Your task to perform on an android device: check data usage Image 0: 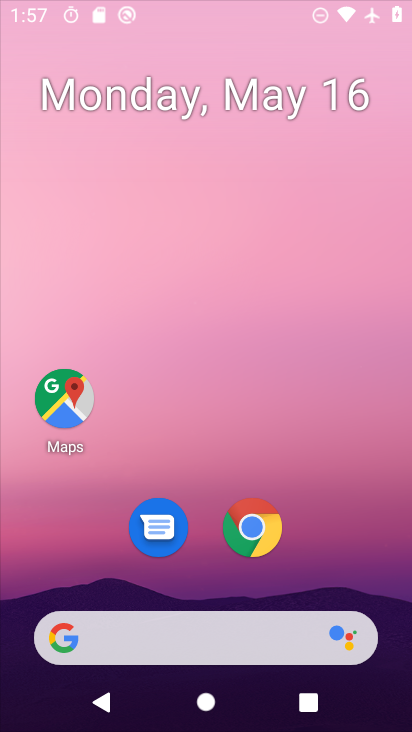
Step 0: press home button
Your task to perform on an android device: check data usage Image 1: 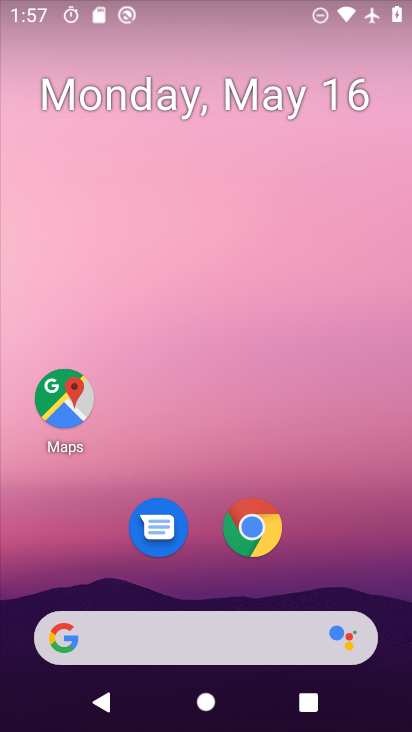
Step 1: drag from (158, 636) to (316, 234)
Your task to perform on an android device: check data usage Image 2: 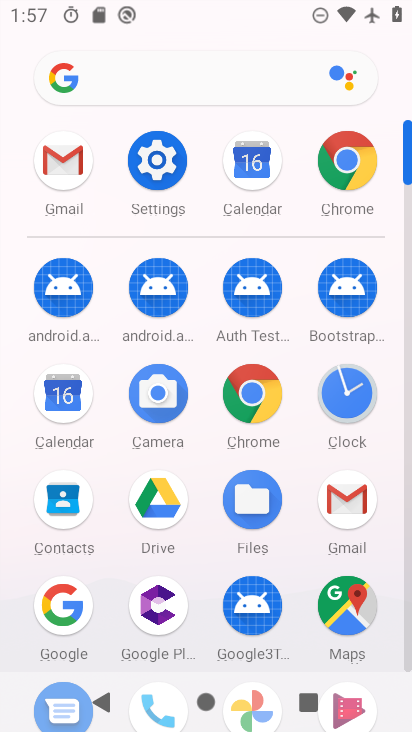
Step 2: click (160, 156)
Your task to perform on an android device: check data usage Image 3: 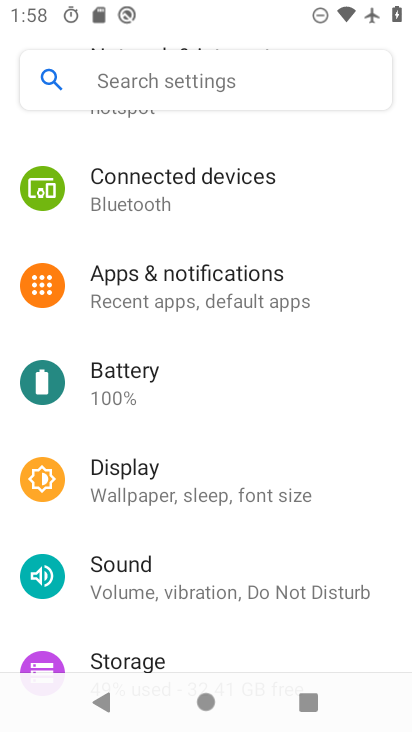
Step 3: drag from (298, 214) to (243, 424)
Your task to perform on an android device: check data usage Image 4: 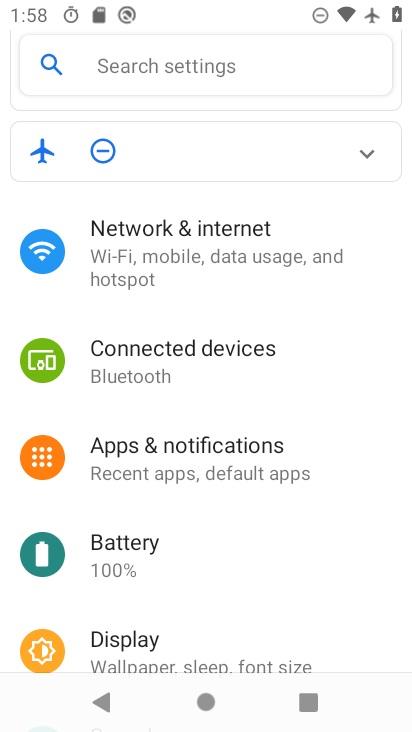
Step 4: click (206, 244)
Your task to perform on an android device: check data usage Image 5: 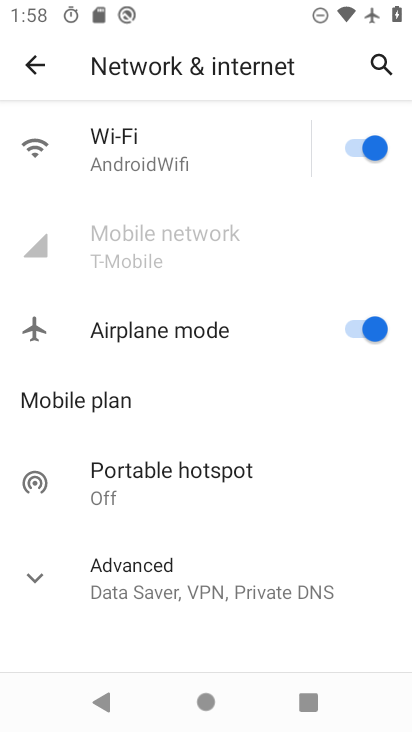
Step 5: click (152, 161)
Your task to perform on an android device: check data usage Image 6: 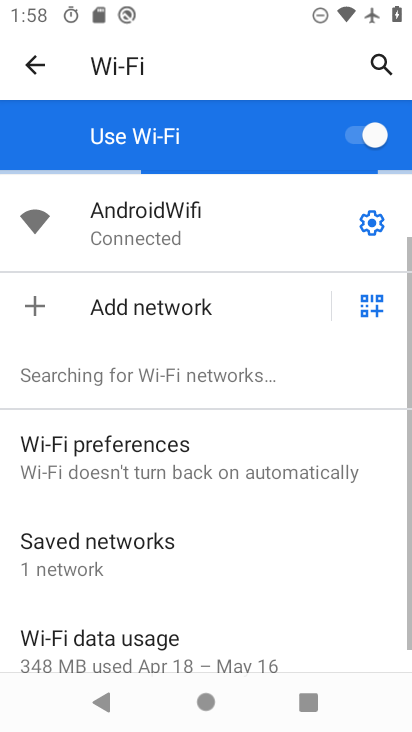
Step 6: drag from (179, 573) to (280, 299)
Your task to perform on an android device: check data usage Image 7: 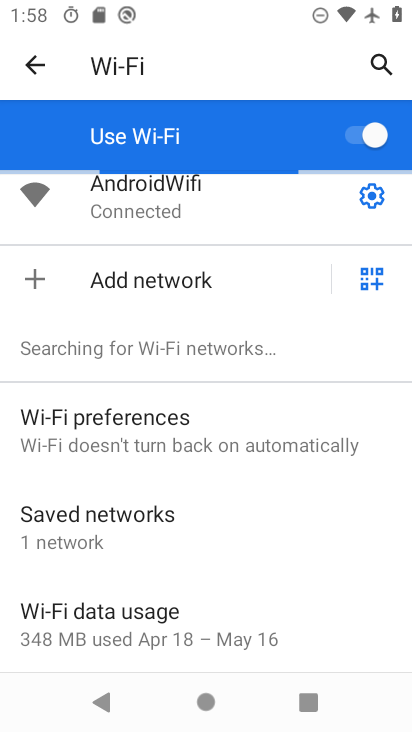
Step 7: click (124, 618)
Your task to perform on an android device: check data usage Image 8: 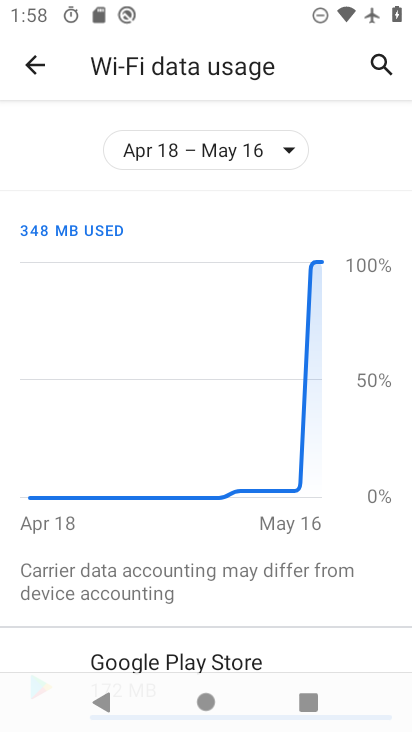
Step 8: task complete